Your task to perform on an android device: visit the assistant section in the google photos Image 0: 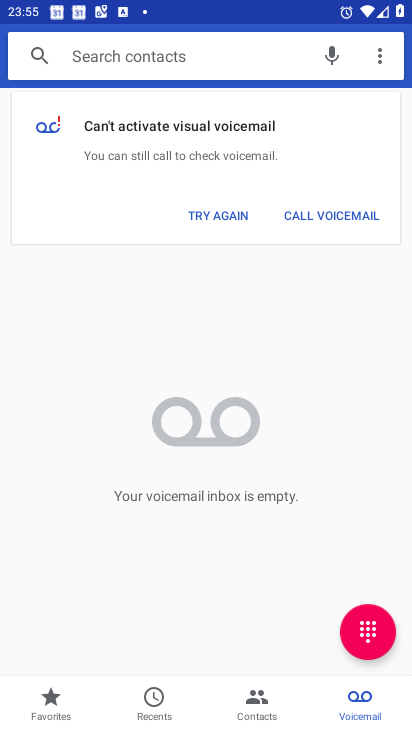
Step 0: press home button
Your task to perform on an android device: visit the assistant section in the google photos Image 1: 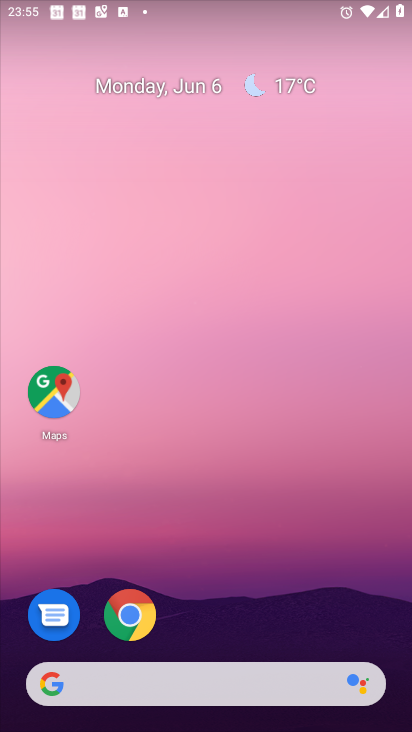
Step 1: drag from (377, 513) to (361, 175)
Your task to perform on an android device: visit the assistant section in the google photos Image 2: 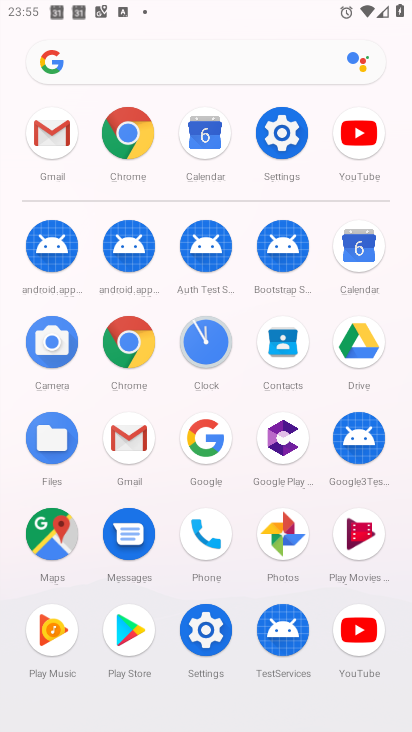
Step 2: click (283, 549)
Your task to perform on an android device: visit the assistant section in the google photos Image 3: 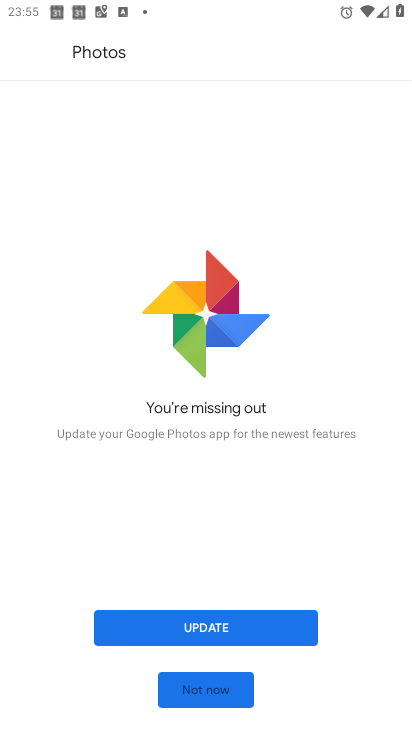
Step 3: click (245, 629)
Your task to perform on an android device: visit the assistant section in the google photos Image 4: 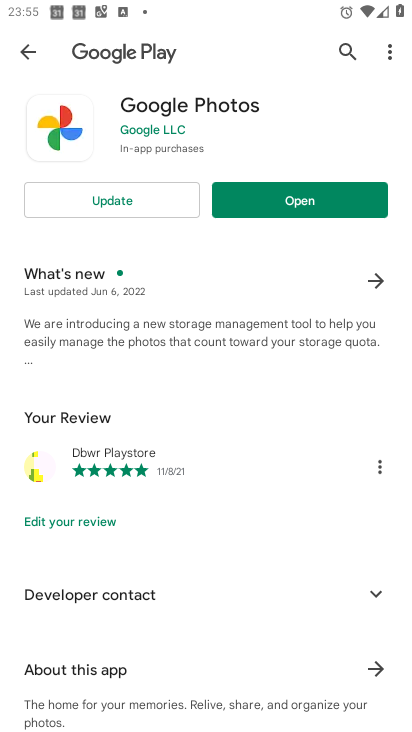
Step 4: click (124, 190)
Your task to perform on an android device: visit the assistant section in the google photos Image 5: 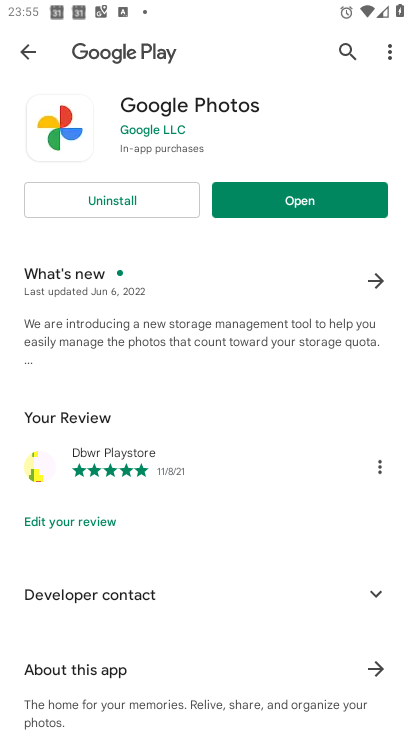
Step 5: click (318, 206)
Your task to perform on an android device: visit the assistant section in the google photos Image 6: 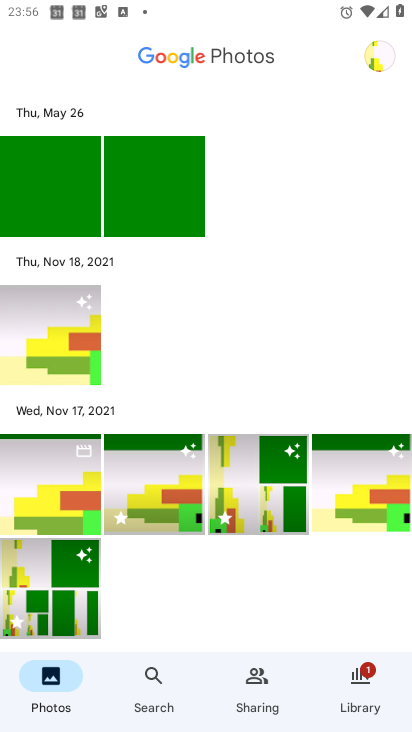
Step 6: task complete